Your task to perform on an android device: open chrome and create a bookmark for the current page Image 0: 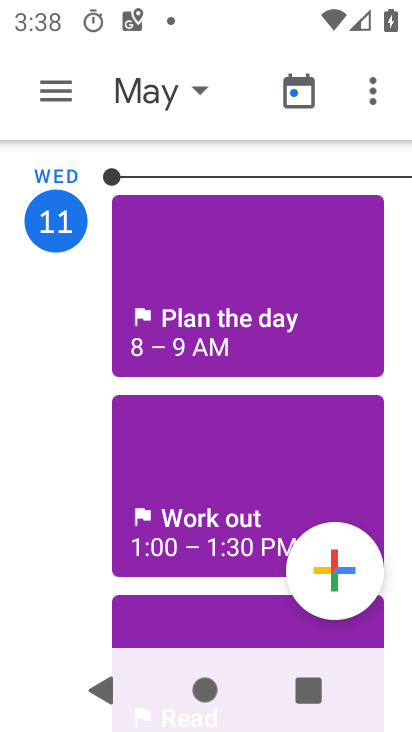
Step 0: press home button
Your task to perform on an android device: open chrome and create a bookmark for the current page Image 1: 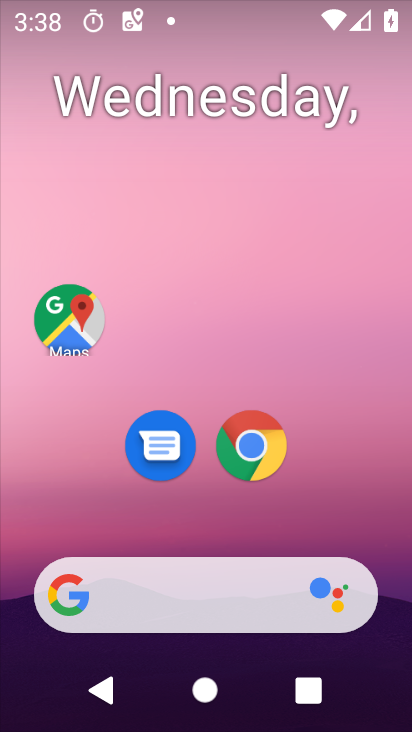
Step 1: click (250, 441)
Your task to perform on an android device: open chrome and create a bookmark for the current page Image 2: 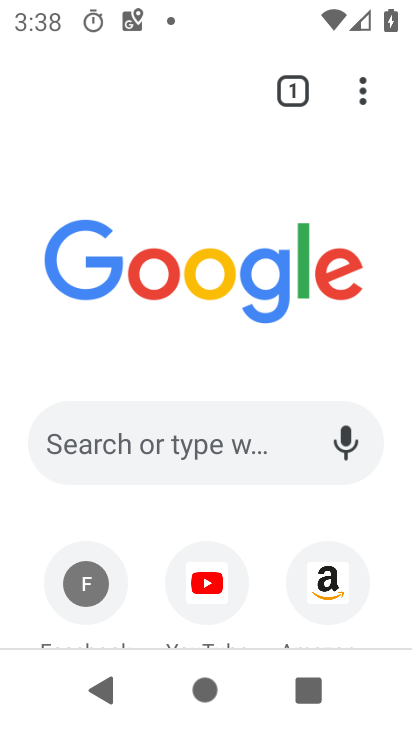
Step 2: click (349, 104)
Your task to perform on an android device: open chrome and create a bookmark for the current page Image 3: 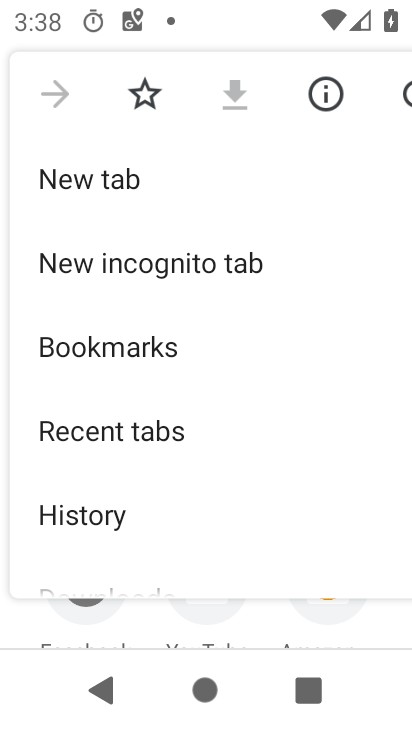
Step 3: click (151, 95)
Your task to perform on an android device: open chrome and create a bookmark for the current page Image 4: 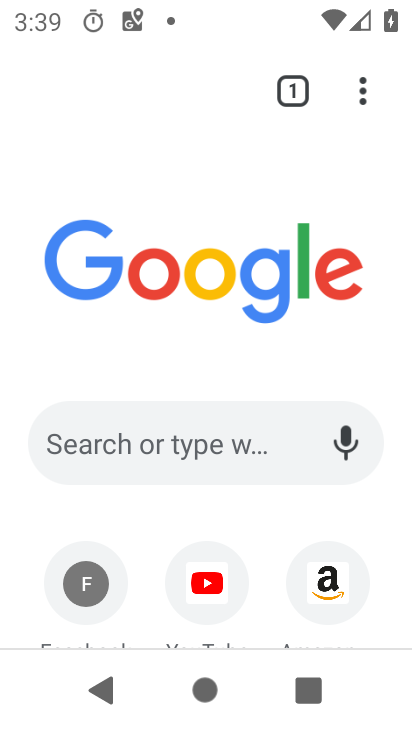
Step 4: task complete